Your task to perform on an android device: move a message to another label in the gmail app Image 0: 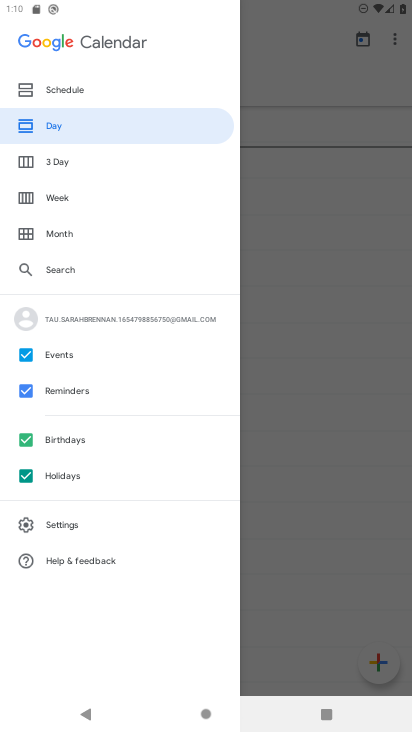
Step 0: press home button
Your task to perform on an android device: move a message to another label in the gmail app Image 1: 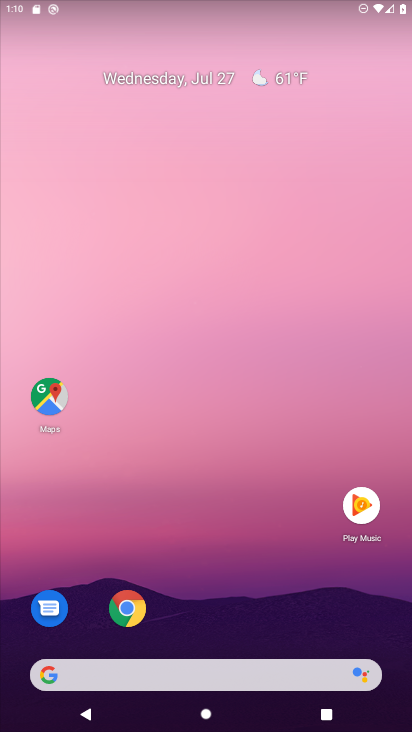
Step 1: drag from (294, 610) to (300, 201)
Your task to perform on an android device: move a message to another label in the gmail app Image 2: 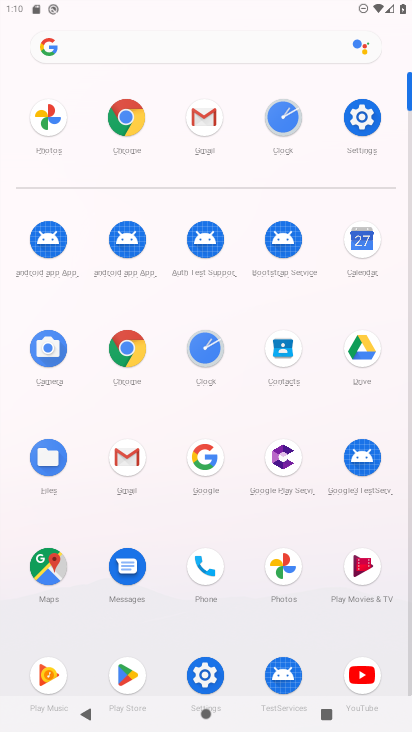
Step 2: click (126, 464)
Your task to perform on an android device: move a message to another label in the gmail app Image 3: 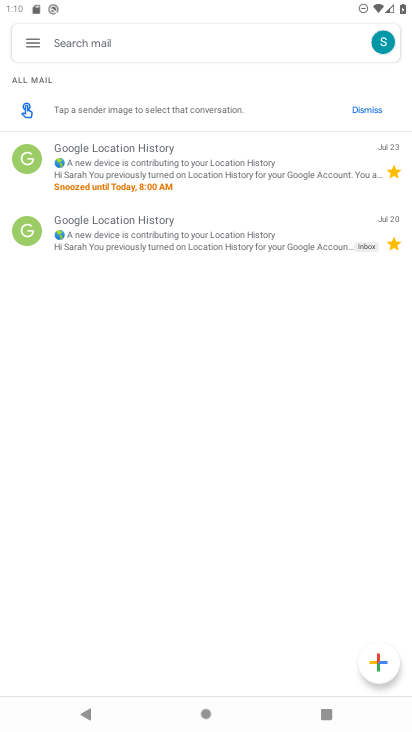
Step 3: click (214, 228)
Your task to perform on an android device: move a message to another label in the gmail app Image 4: 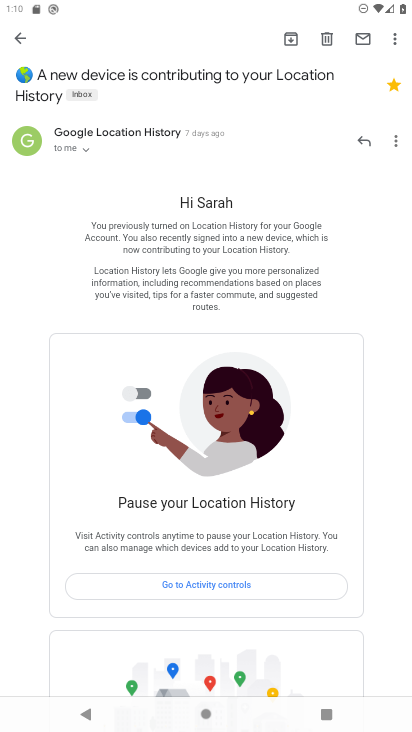
Step 4: click (396, 41)
Your task to perform on an android device: move a message to another label in the gmail app Image 5: 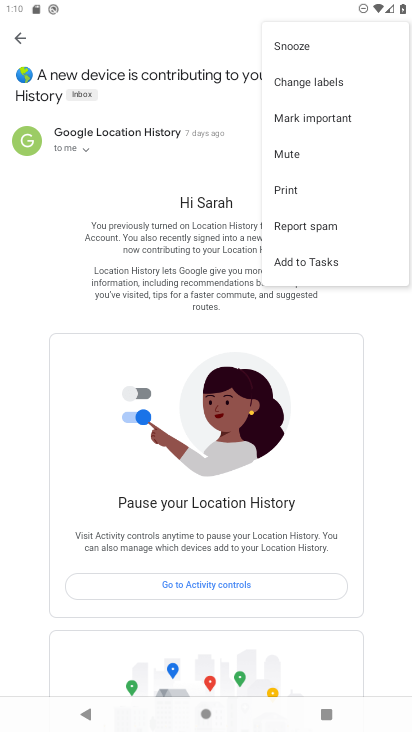
Step 5: click (18, 34)
Your task to perform on an android device: move a message to another label in the gmail app Image 6: 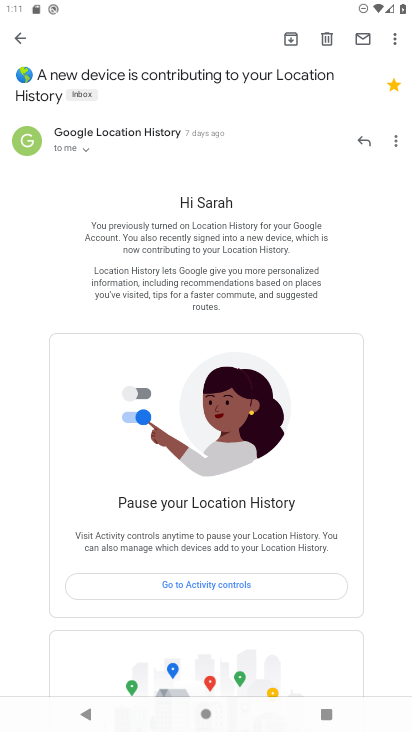
Step 6: click (17, 36)
Your task to perform on an android device: move a message to another label in the gmail app Image 7: 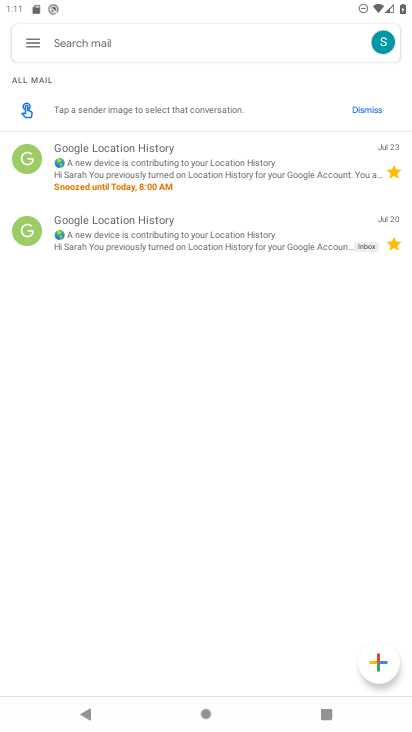
Step 7: click (121, 161)
Your task to perform on an android device: move a message to another label in the gmail app Image 8: 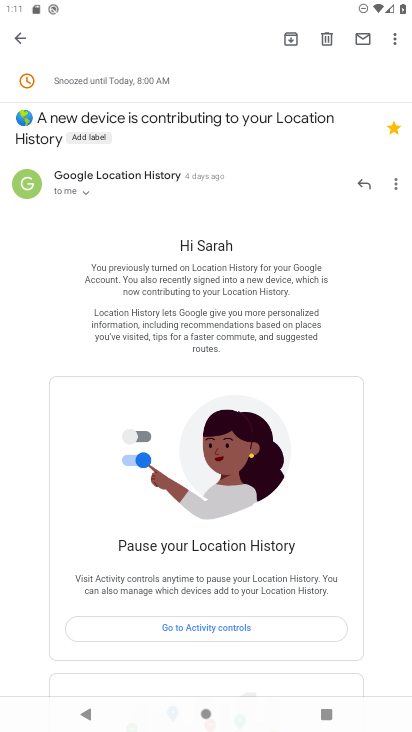
Step 8: click (395, 38)
Your task to perform on an android device: move a message to another label in the gmail app Image 9: 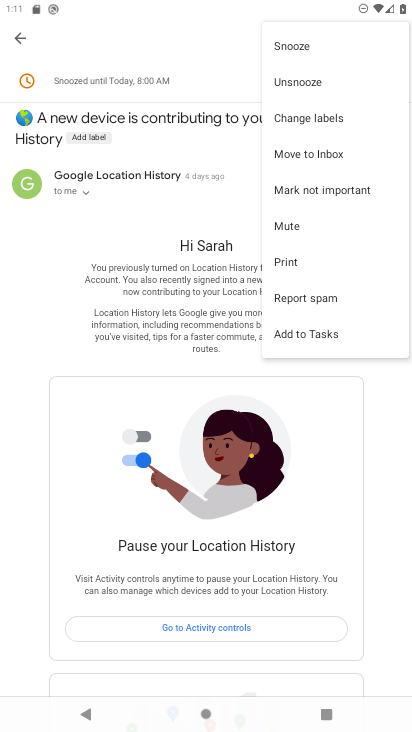
Step 9: click (338, 155)
Your task to perform on an android device: move a message to another label in the gmail app Image 10: 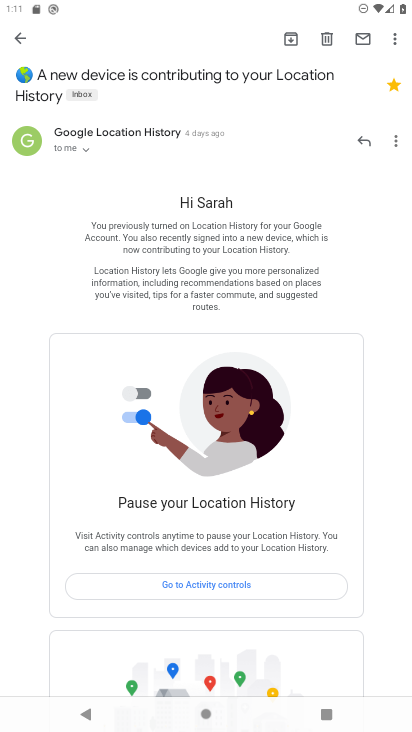
Step 10: task complete